Your task to perform on an android device: Open display settings Image 0: 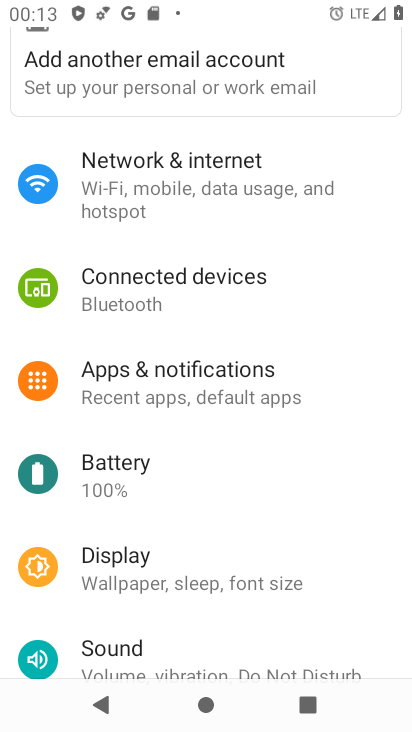
Step 0: drag from (294, 219) to (320, 527)
Your task to perform on an android device: Open display settings Image 1: 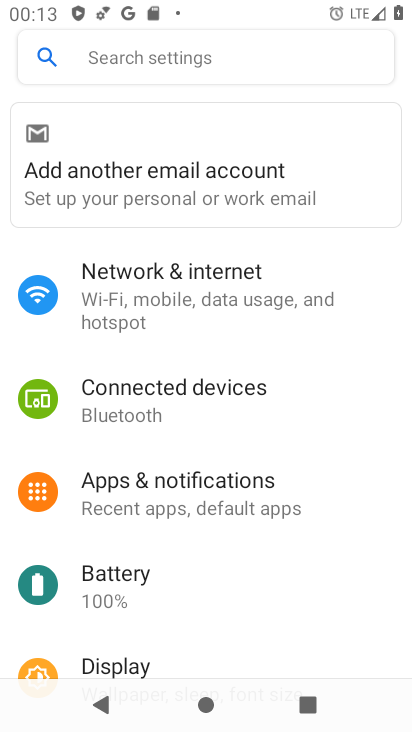
Step 1: drag from (310, 461) to (389, 227)
Your task to perform on an android device: Open display settings Image 2: 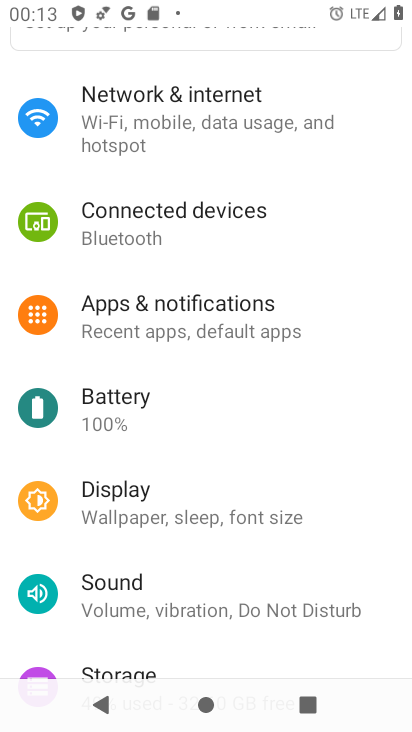
Step 2: click (401, 213)
Your task to perform on an android device: Open display settings Image 3: 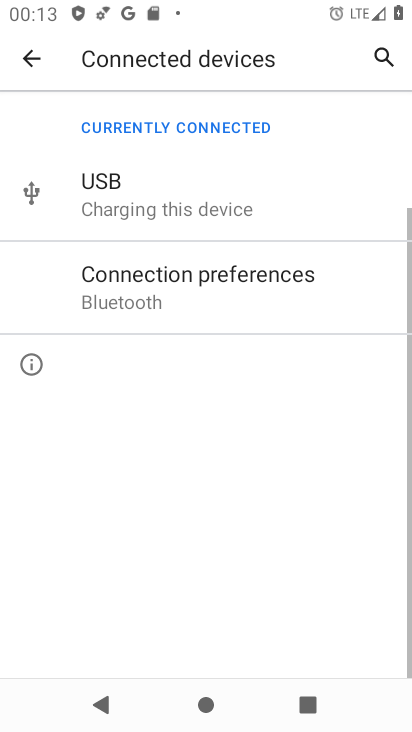
Step 3: drag from (296, 415) to (338, 262)
Your task to perform on an android device: Open display settings Image 4: 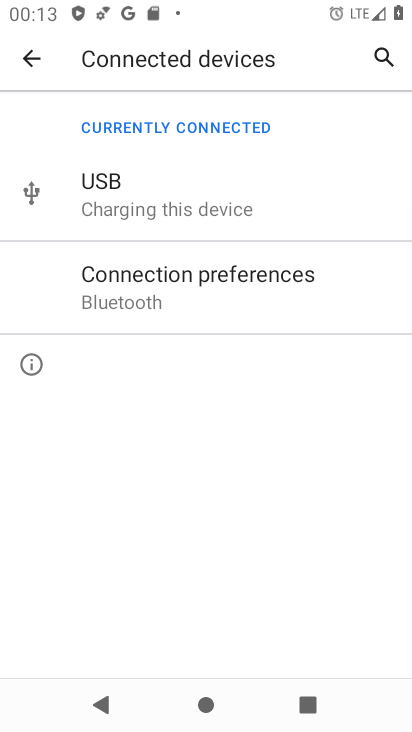
Step 4: click (38, 55)
Your task to perform on an android device: Open display settings Image 5: 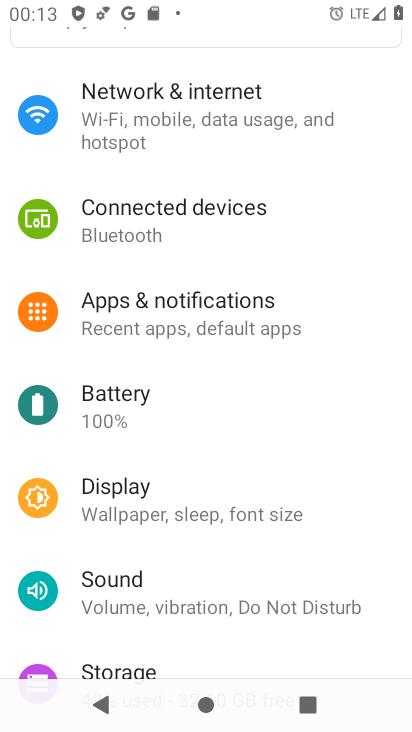
Step 5: drag from (220, 547) to (247, 320)
Your task to perform on an android device: Open display settings Image 6: 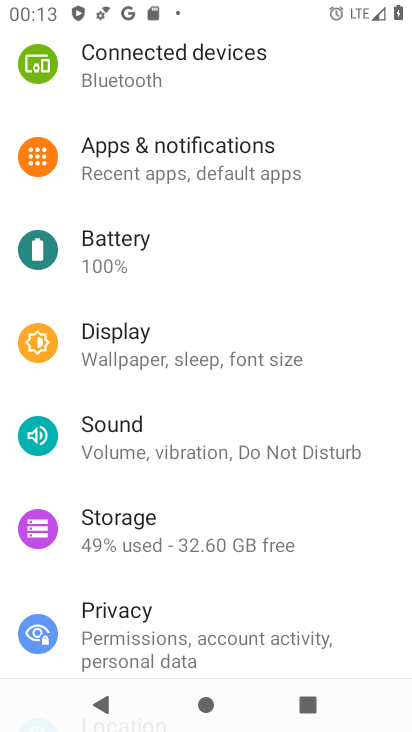
Step 6: click (194, 354)
Your task to perform on an android device: Open display settings Image 7: 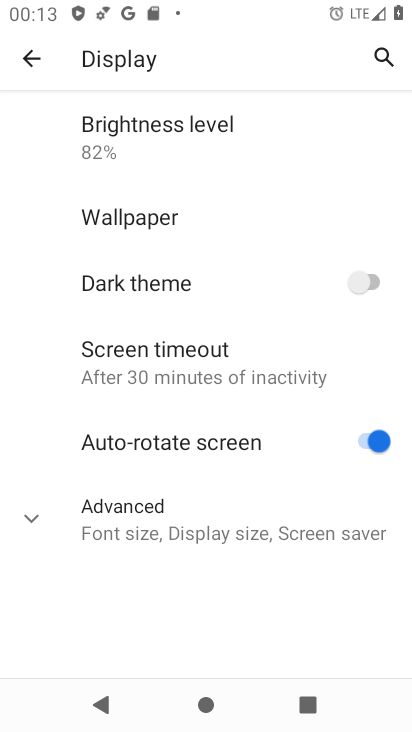
Step 7: task complete